Your task to perform on an android device: Is it going to rain today? Image 0: 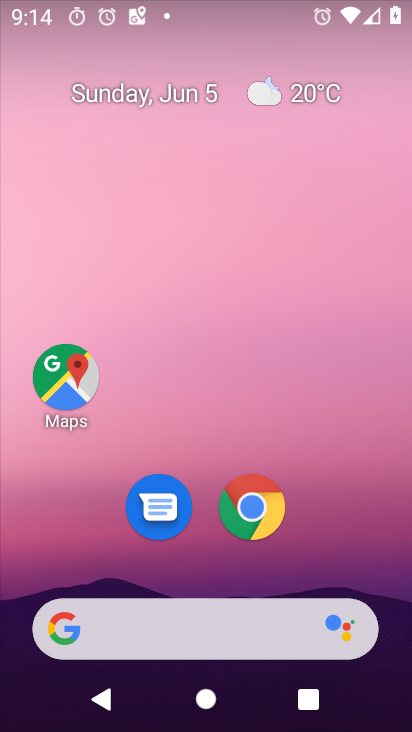
Step 0: drag from (350, 557) to (168, 19)
Your task to perform on an android device: Is it going to rain today? Image 1: 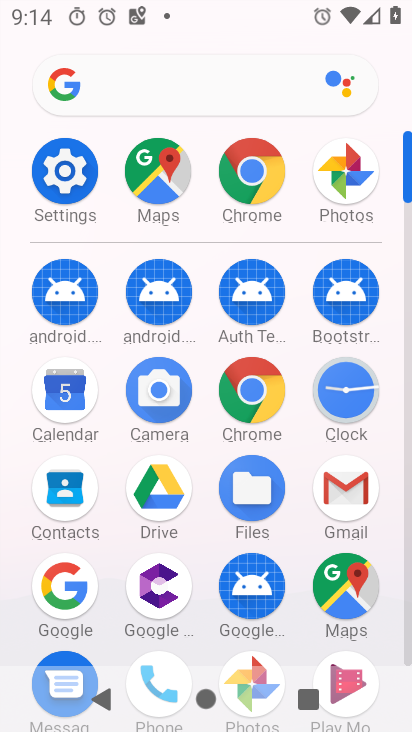
Step 1: drag from (6, 556) to (4, 198)
Your task to perform on an android device: Is it going to rain today? Image 2: 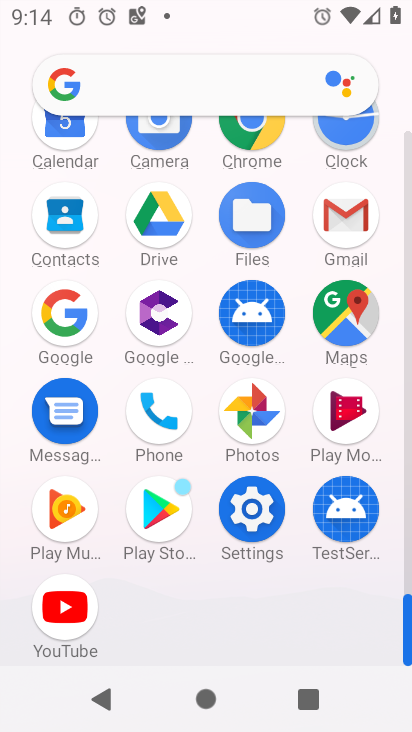
Step 2: drag from (32, 138) to (13, 377)
Your task to perform on an android device: Is it going to rain today? Image 3: 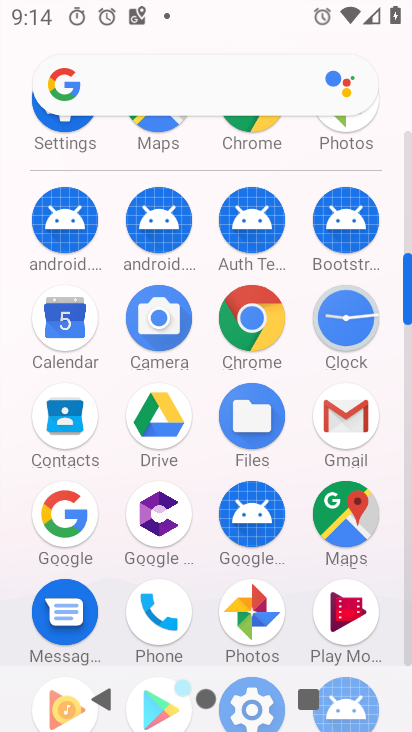
Step 3: click (253, 316)
Your task to perform on an android device: Is it going to rain today? Image 4: 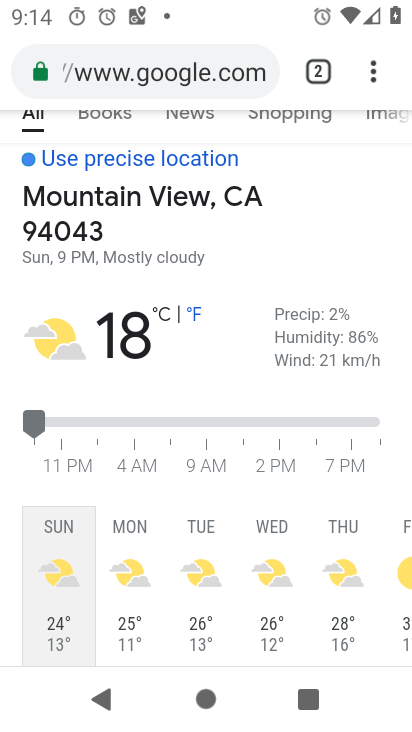
Step 4: click (205, 60)
Your task to perform on an android device: Is it going to rain today? Image 5: 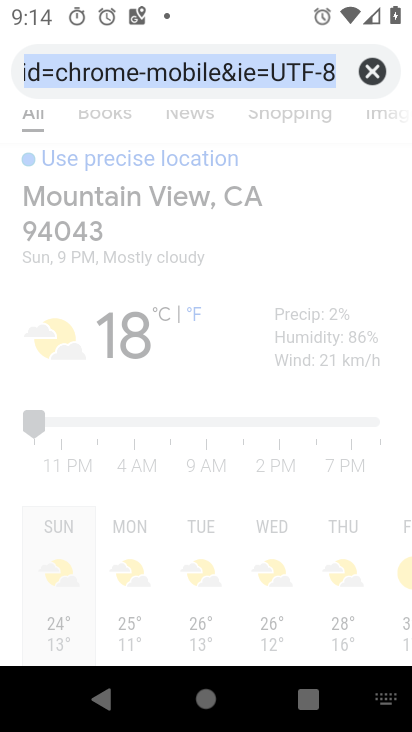
Step 5: click (372, 71)
Your task to perform on an android device: Is it going to rain today? Image 6: 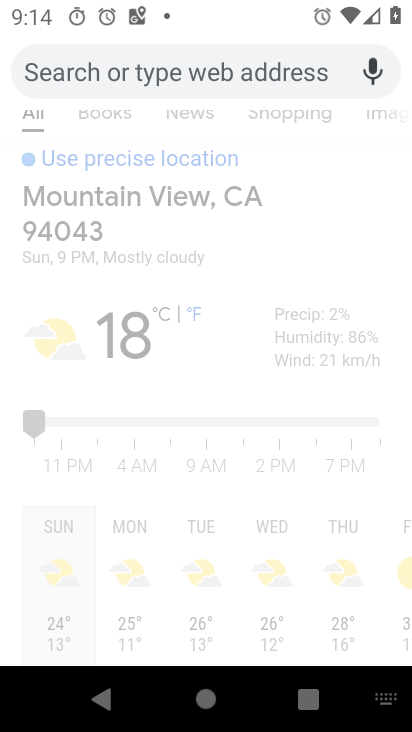
Step 6: type "Is it going to rain today?"
Your task to perform on an android device: Is it going to rain today? Image 7: 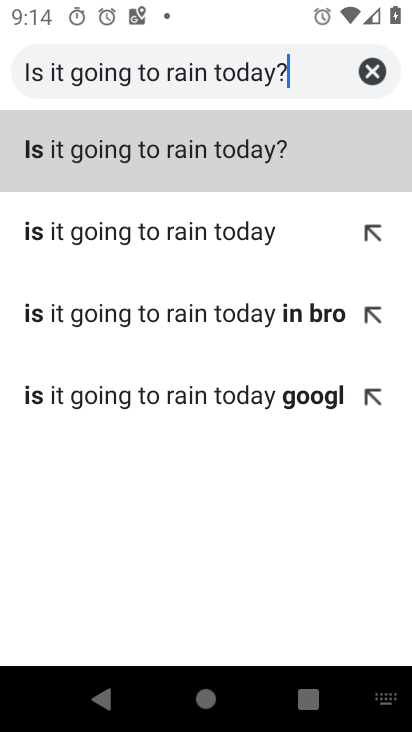
Step 7: type ""
Your task to perform on an android device: Is it going to rain today? Image 8: 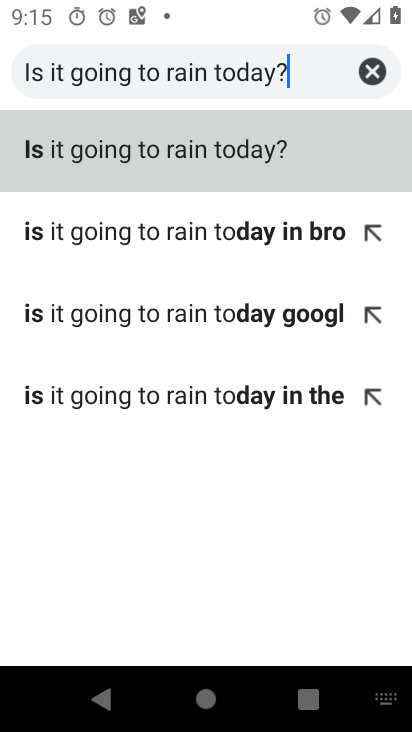
Step 8: click (168, 151)
Your task to perform on an android device: Is it going to rain today? Image 9: 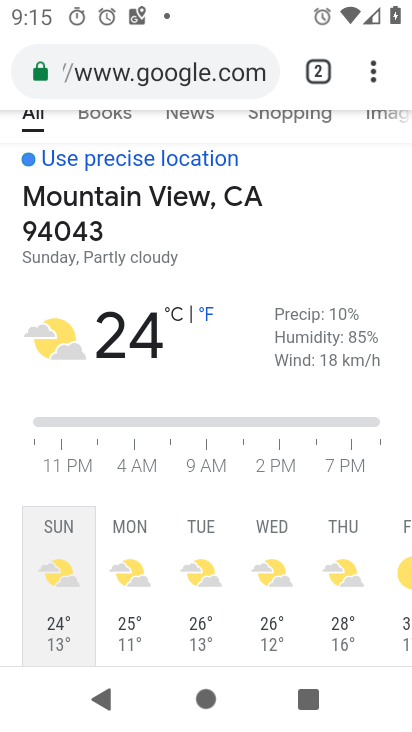
Step 9: task complete